Your task to perform on an android device: check data usage Image 0: 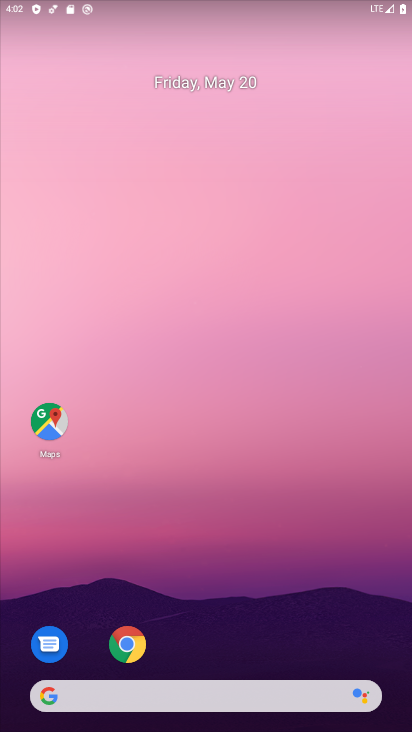
Step 0: drag from (270, 701) to (181, 195)
Your task to perform on an android device: check data usage Image 1: 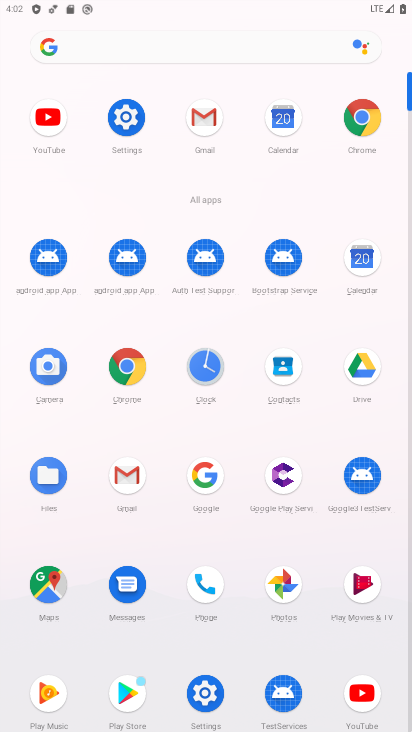
Step 1: click (214, 679)
Your task to perform on an android device: check data usage Image 2: 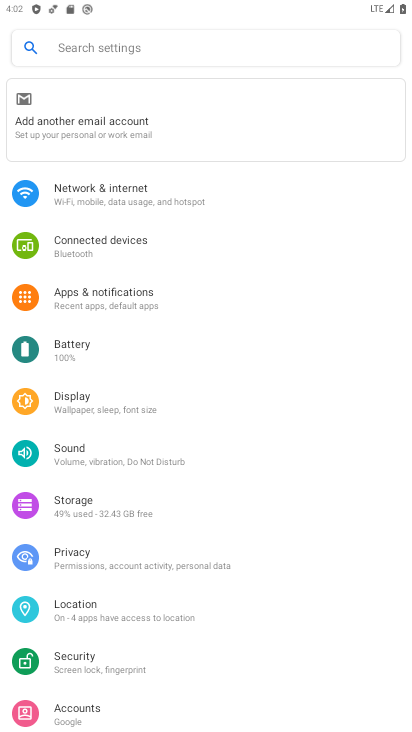
Step 2: click (94, 46)
Your task to perform on an android device: check data usage Image 3: 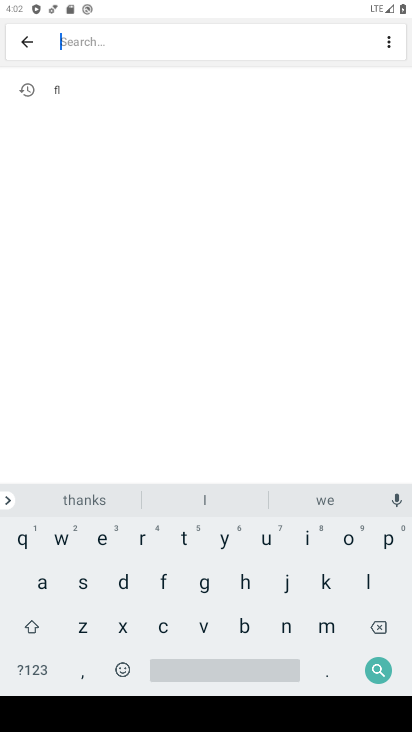
Step 3: click (127, 585)
Your task to perform on an android device: check data usage Image 4: 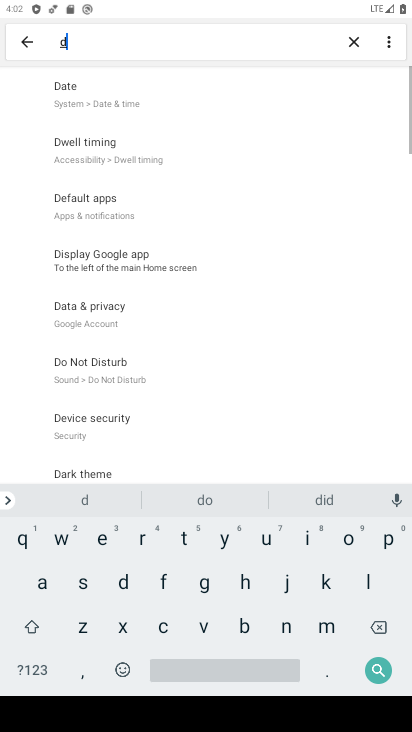
Step 4: click (39, 591)
Your task to perform on an android device: check data usage Image 5: 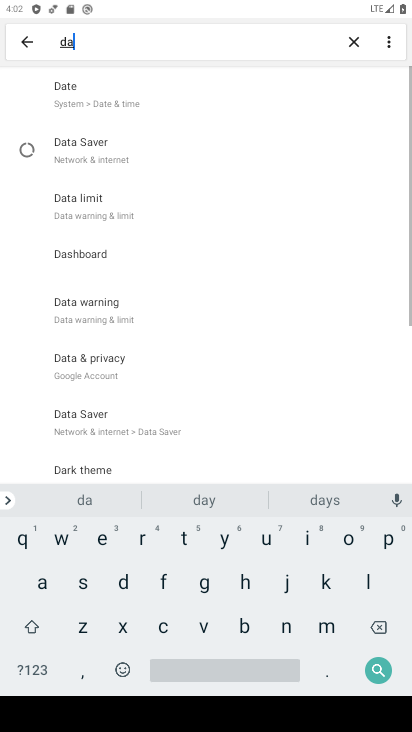
Step 5: click (187, 534)
Your task to perform on an android device: check data usage Image 6: 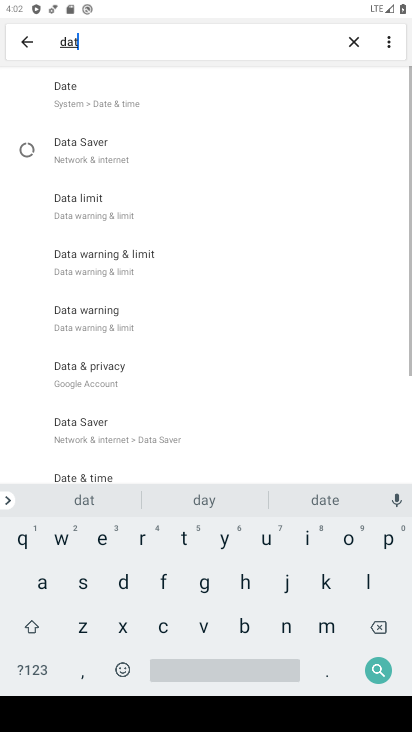
Step 6: click (42, 576)
Your task to perform on an android device: check data usage Image 7: 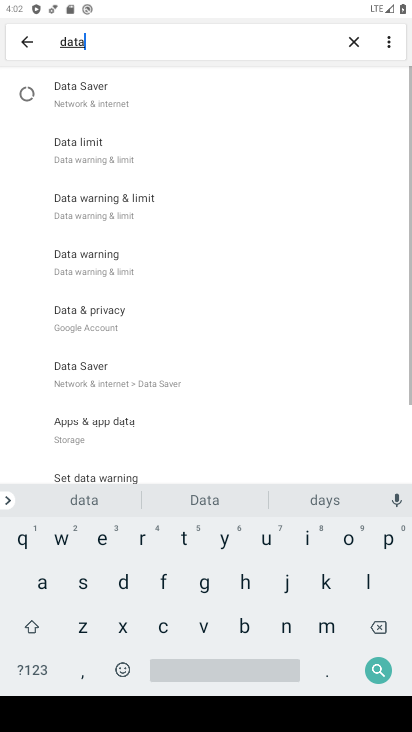
Step 7: click (190, 673)
Your task to perform on an android device: check data usage Image 8: 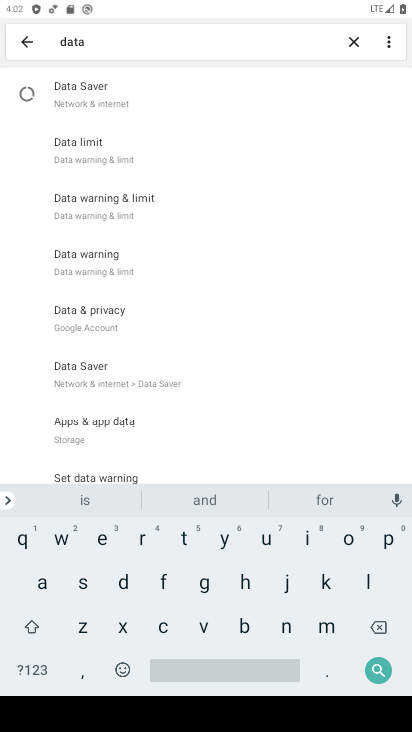
Step 8: click (270, 536)
Your task to perform on an android device: check data usage Image 9: 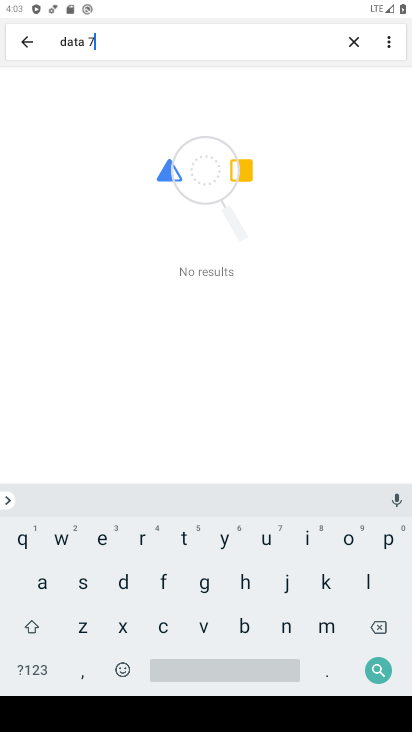
Step 9: click (385, 625)
Your task to perform on an android device: check data usage Image 10: 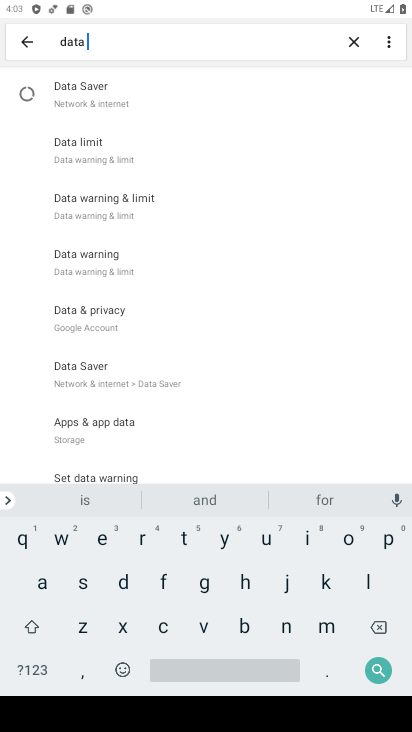
Step 10: click (266, 539)
Your task to perform on an android device: check data usage Image 11: 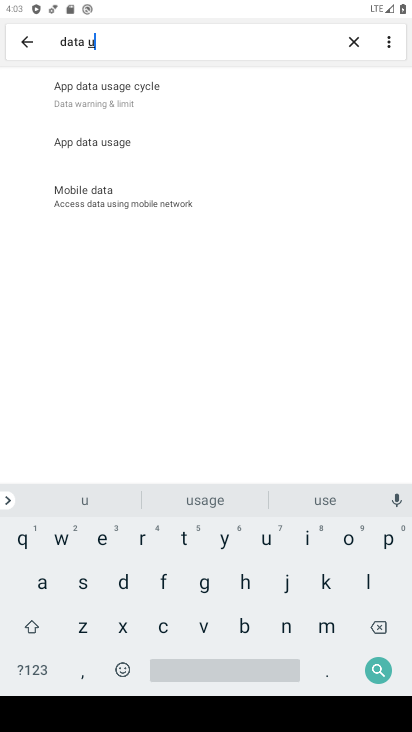
Step 11: click (129, 151)
Your task to perform on an android device: check data usage Image 12: 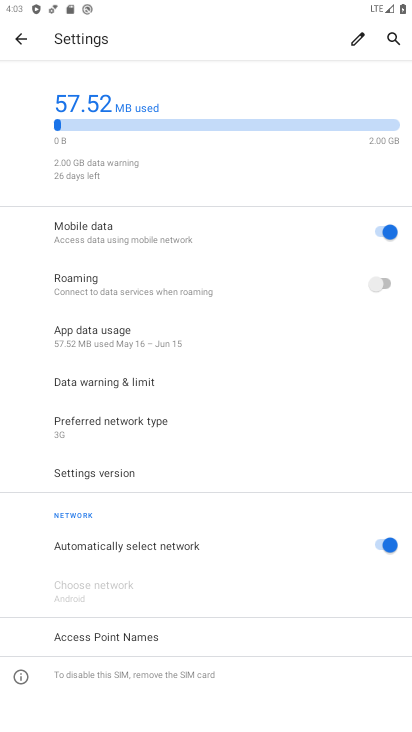
Step 12: task complete